Your task to perform on an android device: change the clock display to show seconds Image 0: 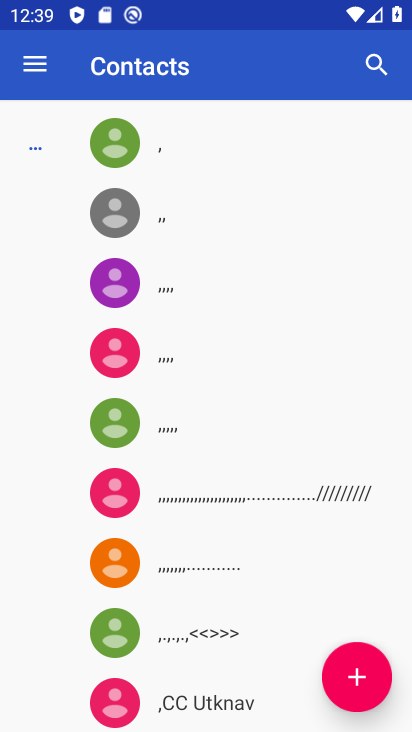
Step 0: press home button
Your task to perform on an android device: change the clock display to show seconds Image 1: 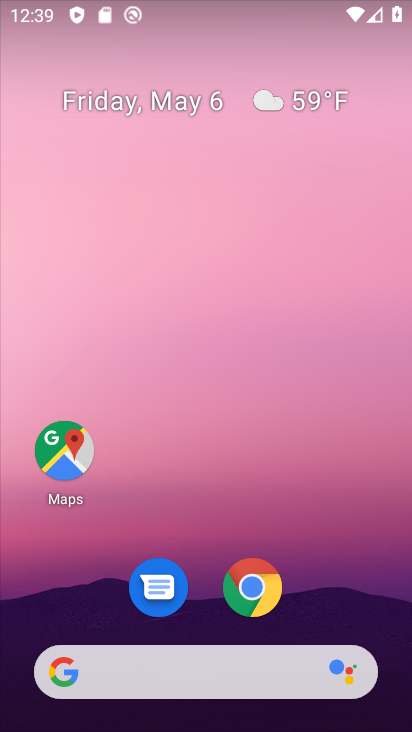
Step 1: drag from (240, 605) to (293, 113)
Your task to perform on an android device: change the clock display to show seconds Image 2: 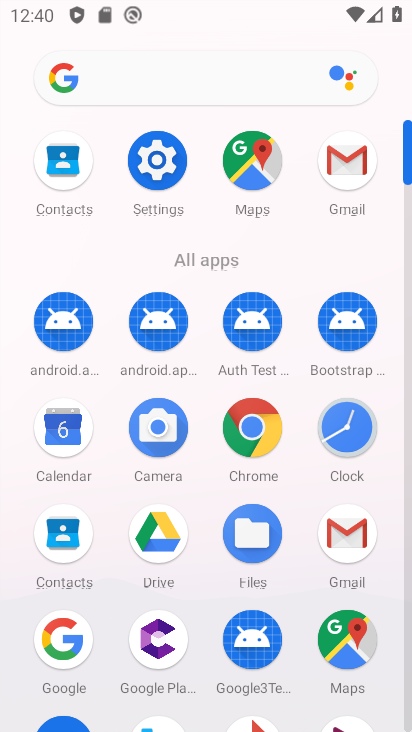
Step 2: click (346, 450)
Your task to perform on an android device: change the clock display to show seconds Image 3: 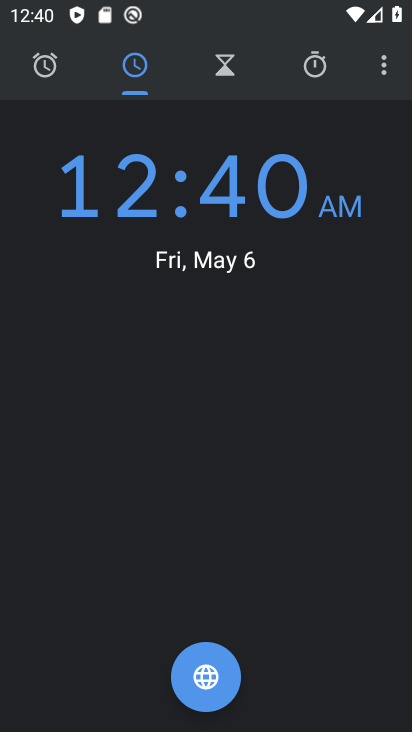
Step 3: click (381, 79)
Your task to perform on an android device: change the clock display to show seconds Image 4: 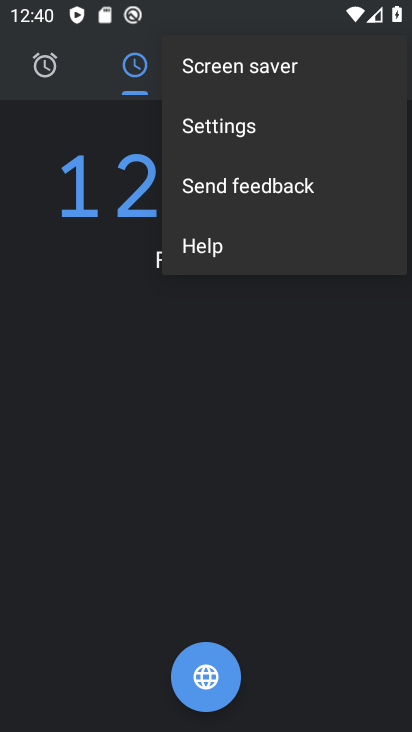
Step 4: click (294, 123)
Your task to perform on an android device: change the clock display to show seconds Image 5: 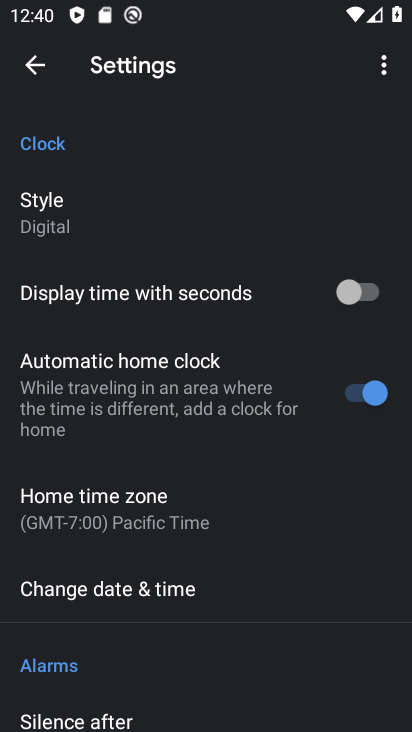
Step 5: click (382, 292)
Your task to perform on an android device: change the clock display to show seconds Image 6: 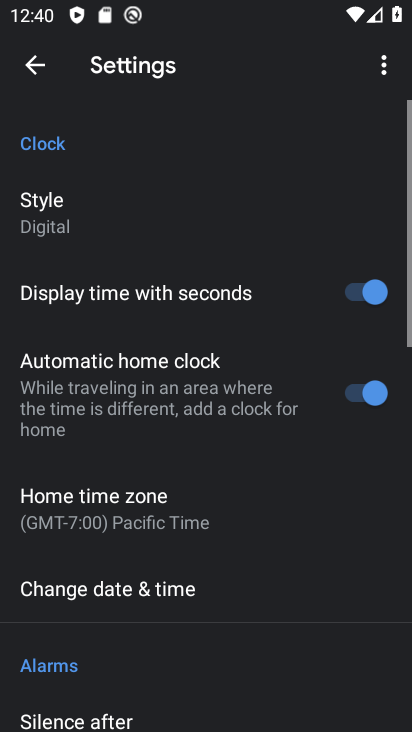
Step 6: task complete